Your task to perform on an android device: change the clock style Image 0: 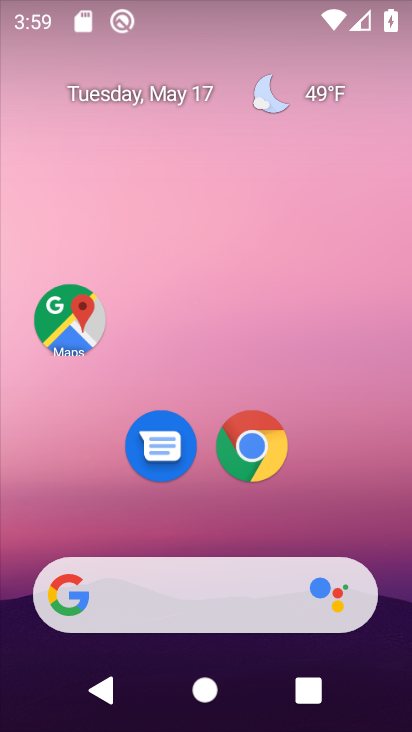
Step 0: drag from (65, 564) to (201, 69)
Your task to perform on an android device: change the clock style Image 1: 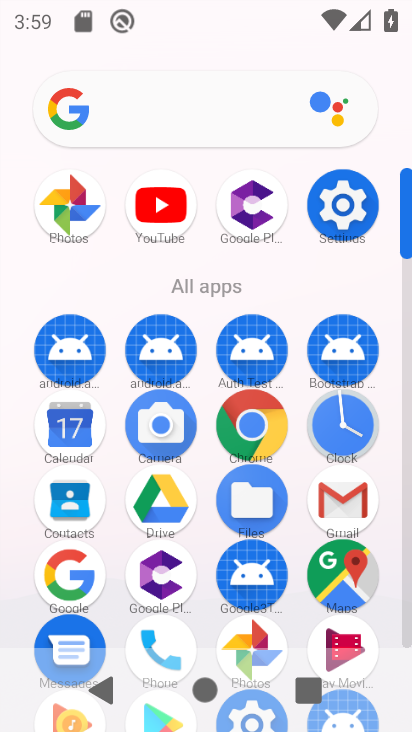
Step 1: click (362, 416)
Your task to perform on an android device: change the clock style Image 2: 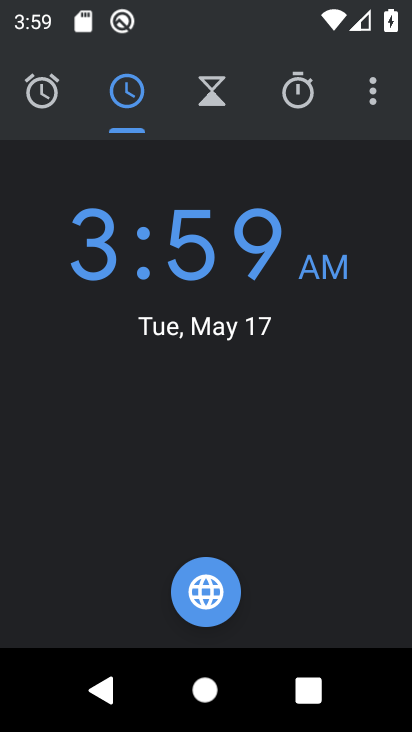
Step 2: click (384, 99)
Your task to perform on an android device: change the clock style Image 3: 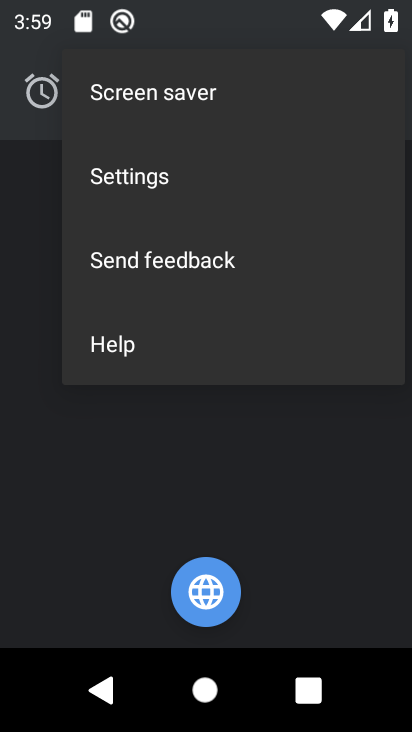
Step 3: click (288, 173)
Your task to perform on an android device: change the clock style Image 4: 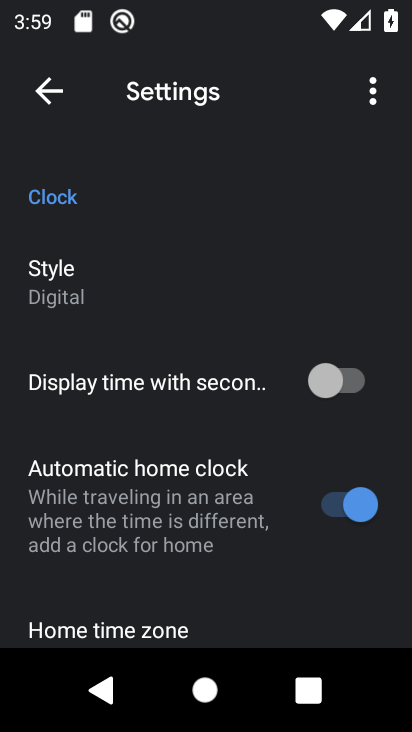
Step 4: click (113, 309)
Your task to perform on an android device: change the clock style Image 5: 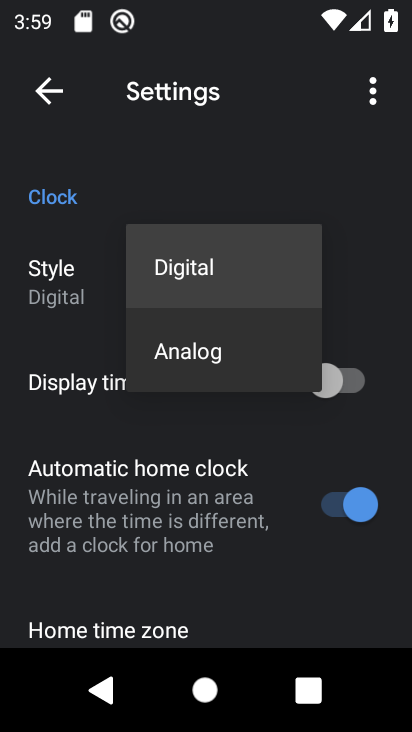
Step 5: click (216, 350)
Your task to perform on an android device: change the clock style Image 6: 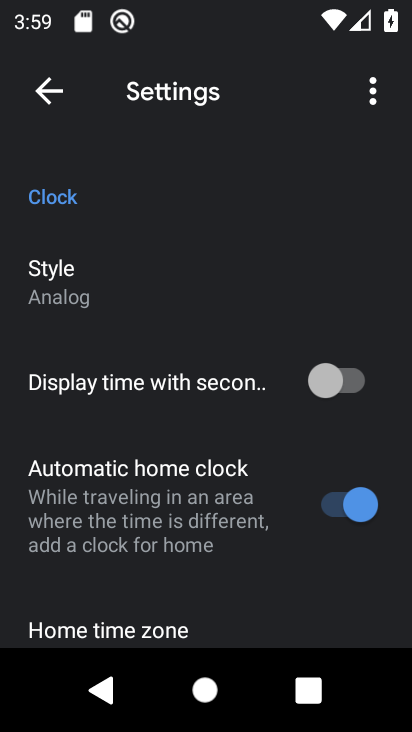
Step 6: task complete